Your task to perform on an android device: snooze an email in the gmail app Image 0: 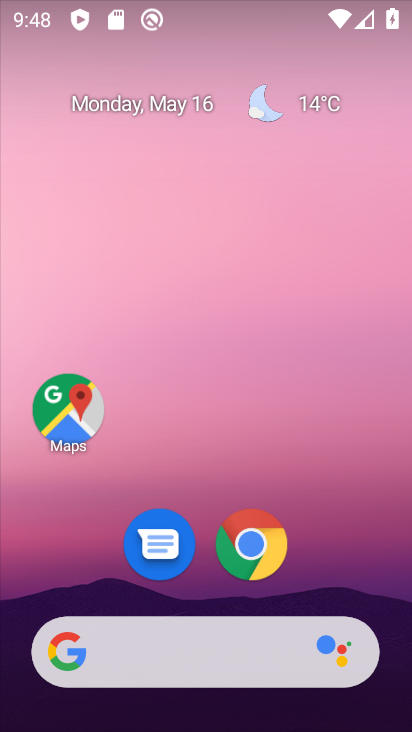
Step 0: drag from (351, 467) to (411, 68)
Your task to perform on an android device: snooze an email in the gmail app Image 1: 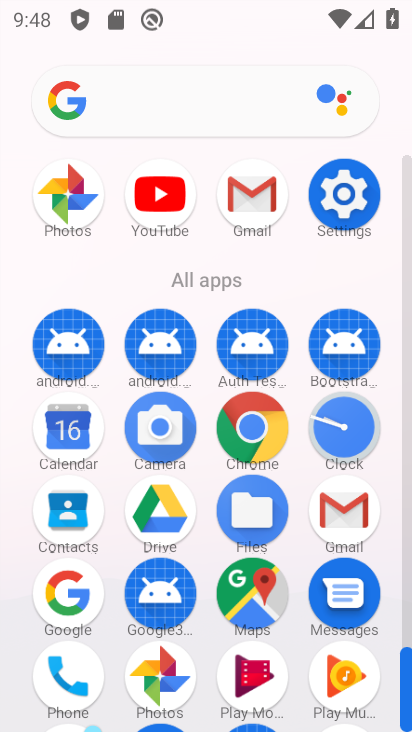
Step 1: click (352, 527)
Your task to perform on an android device: snooze an email in the gmail app Image 2: 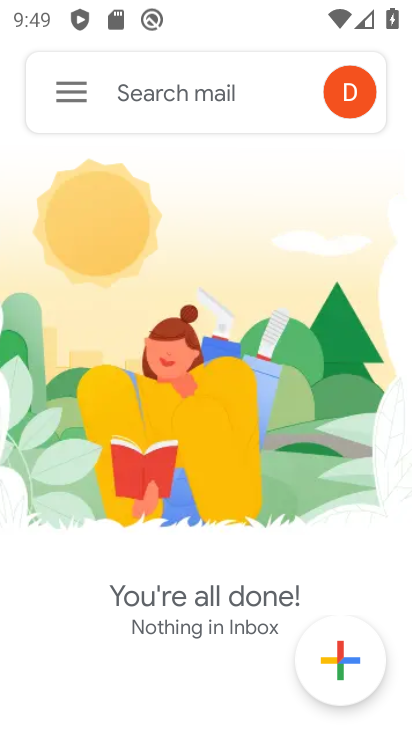
Step 2: task complete